Your task to perform on an android device: Is it going to rain tomorrow? Image 0: 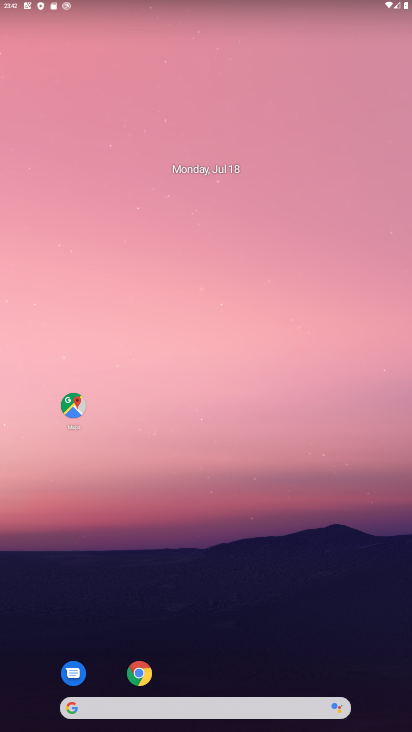
Step 0: drag from (185, 629) to (193, 204)
Your task to perform on an android device: Is it going to rain tomorrow? Image 1: 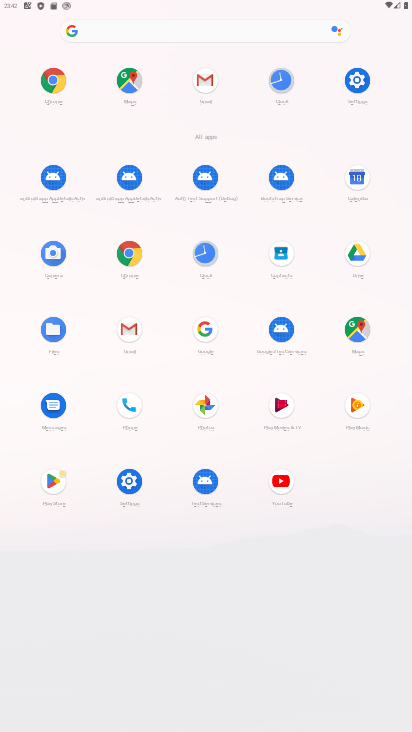
Step 1: click (55, 81)
Your task to perform on an android device: Is it going to rain tomorrow? Image 2: 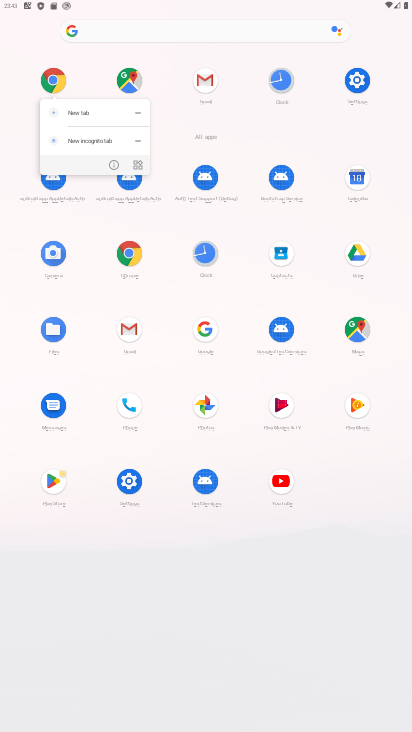
Step 2: click (59, 80)
Your task to perform on an android device: Is it going to rain tomorrow? Image 3: 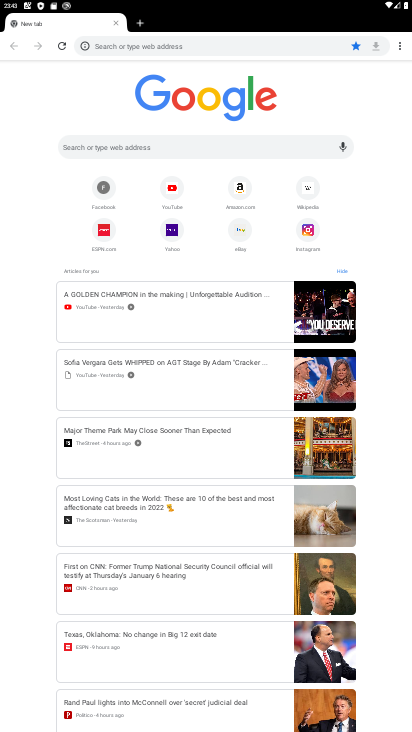
Step 3: click (197, 144)
Your task to perform on an android device: Is it going to rain tomorrow? Image 4: 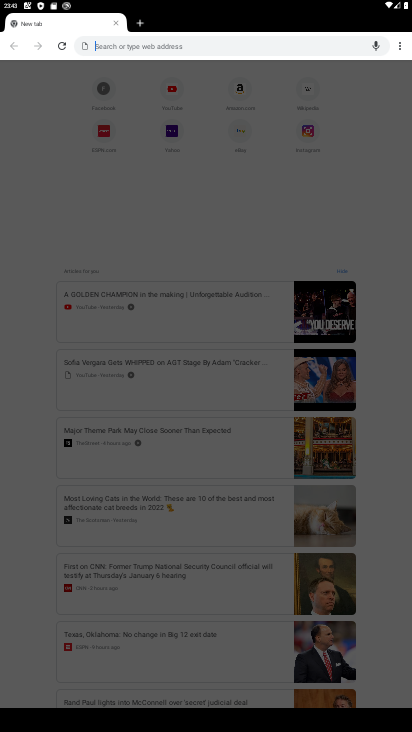
Step 4: type "Is it going to rain tomorrow "
Your task to perform on an android device: Is it going to rain tomorrow? Image 5: 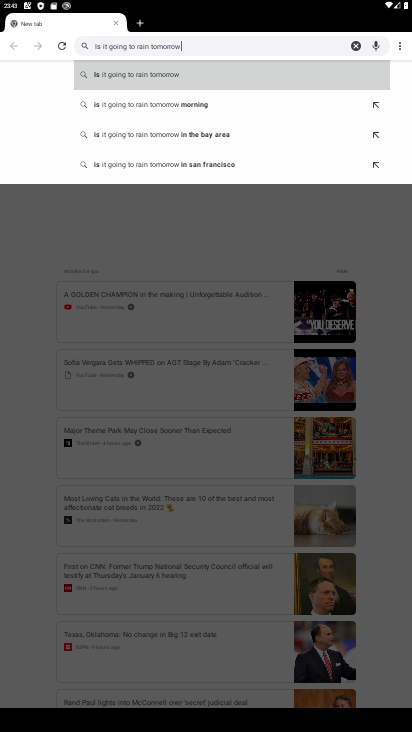
Step 5: click (162, 68)
Your task to perform on an android device: Is it going to rain tomorrow? Image 6: 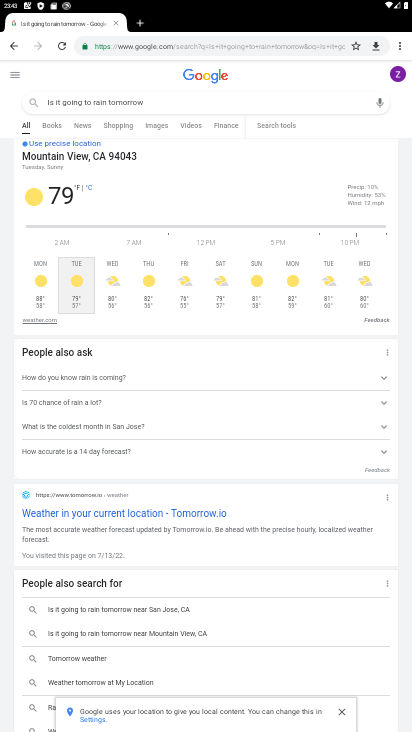
Step 6: task complete